Your task to perform on an android device: toggle notifications settings in the gmail app Image 0: 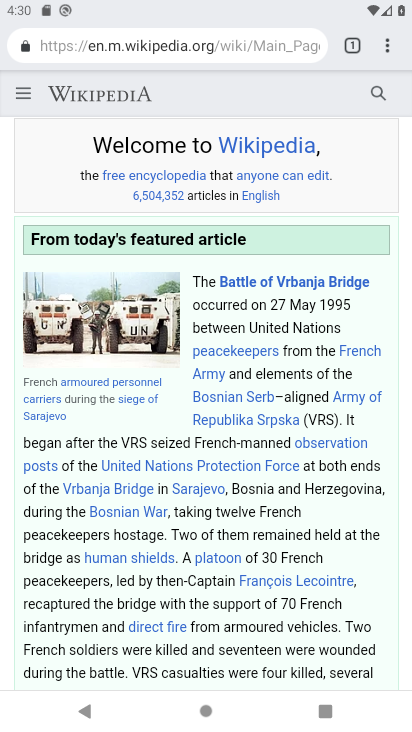
Step 0: press home button
Your task to perform on an android device: toggle notifications settings in the gmail app Image 1: 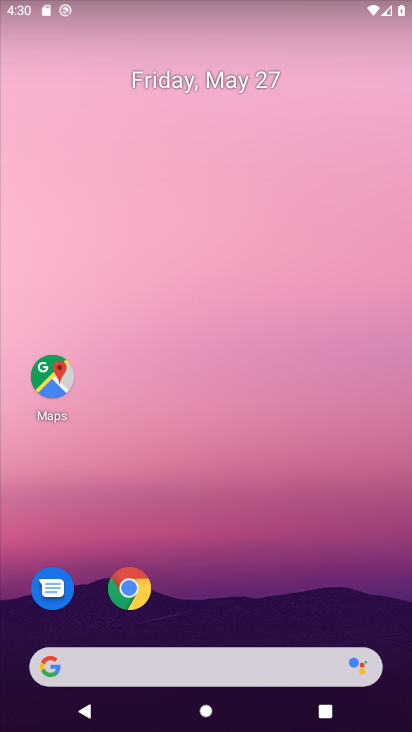
Step 1: drag from (153, 646) to (211, 52)
Your task to perform on an android device: toggle notifications settings in the gmail app Image 2: 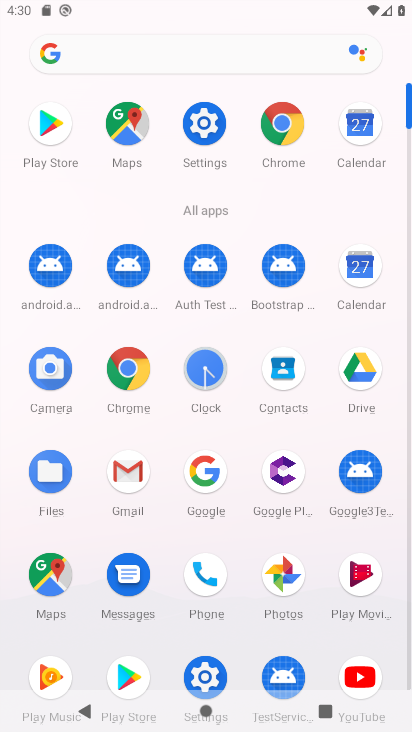
Step 2: click (125, 471)
Your task to perform on an android device: toggle notifications settings in the gmail app Image 3: 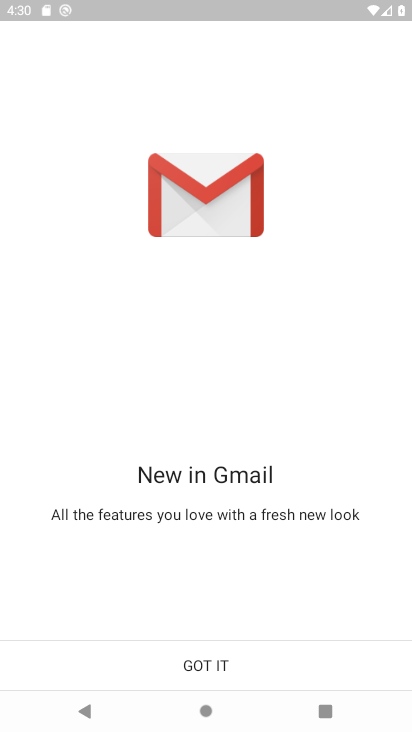
Step 3: click (196, 660)
Your task to perform on an android device: toggle notifications settings in the gmail app Image 4: 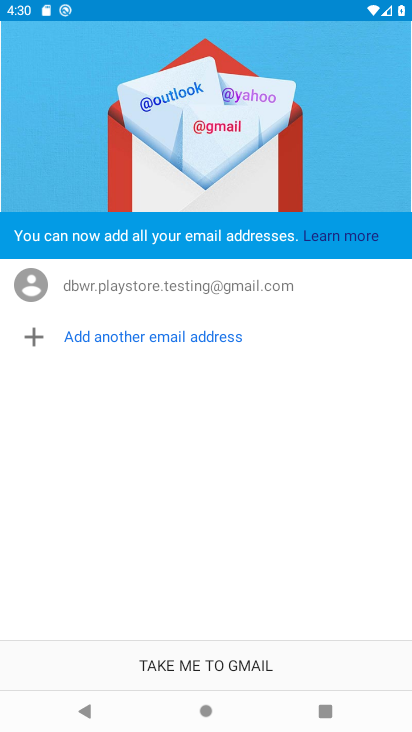
Step 4: click (196, 660)
Your task to perform on an android device: toggle notifications settings in the gmail app Image 5: 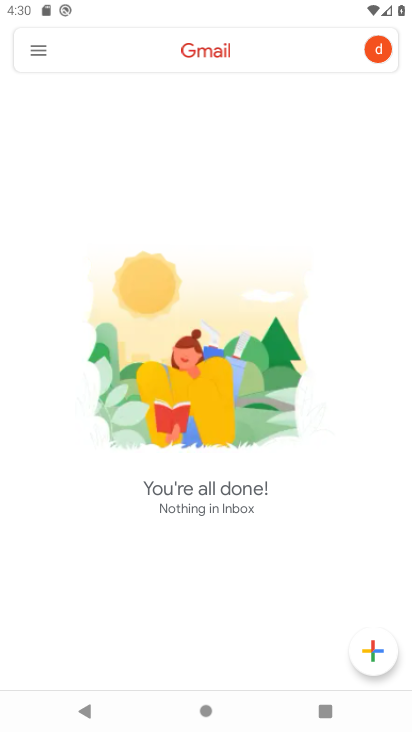
Step 5: click (42, 55)
Your task to perform on an android device: toggle notifications settings in the gmail app Image 6: 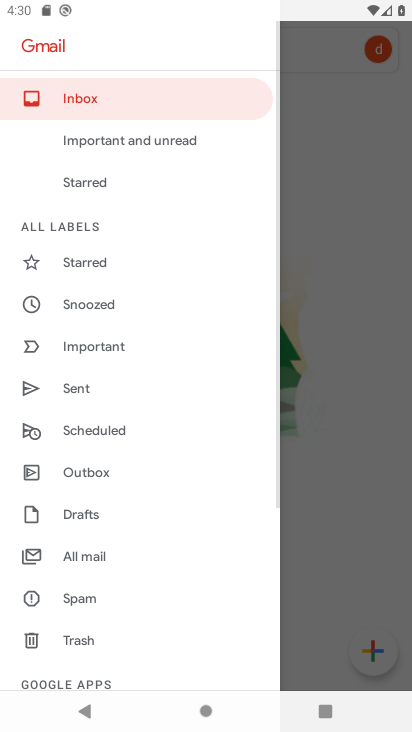
Step 6: drag from (89, 624) to (94, 338)
Your task to perform on an android device: toggle notifications settings in the gmail app Image 7: 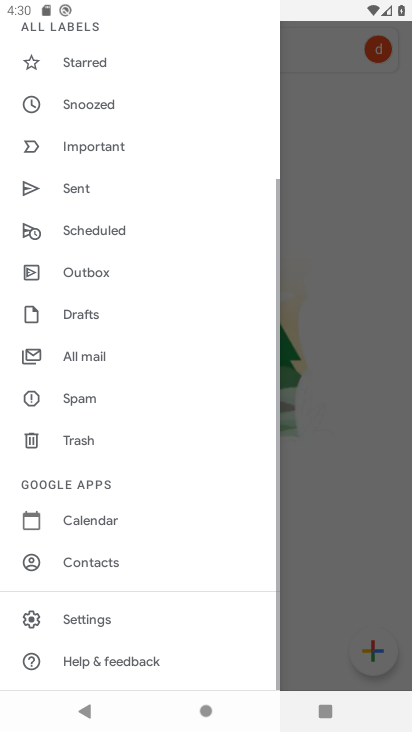
Step 7: click (70, 616)
Your task to perform on an android device: toggle notifications settings in the gmail app Image 8: 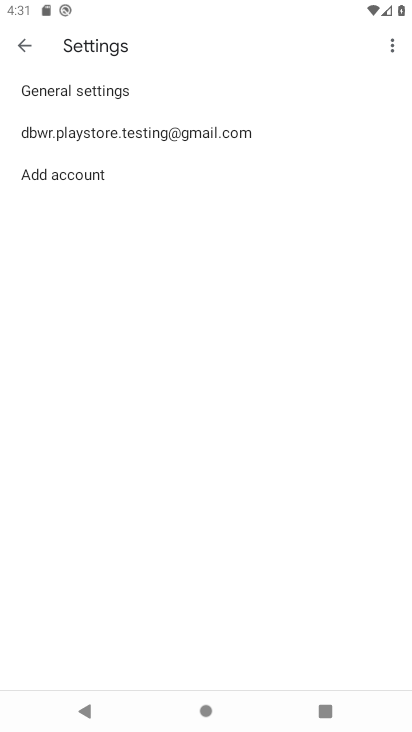
Step 8: click (97, 133)
Your task to perform on an android device: toggle notifications settings in the gmail app Image 9: 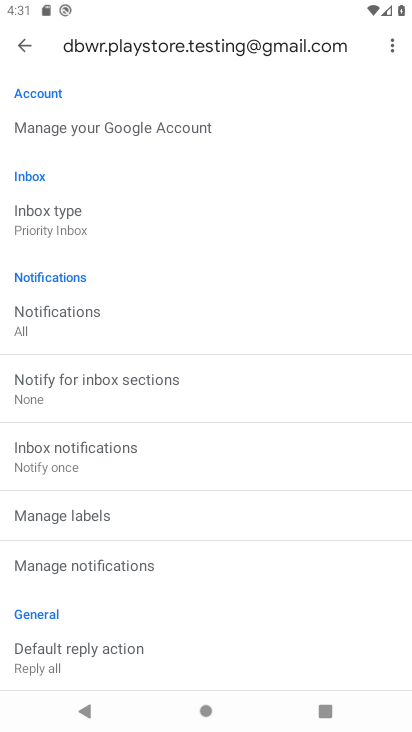
Step 9: click (79, 322)
Your task to perform on an android device: toggle notifications settings in the gmail app Image 10: 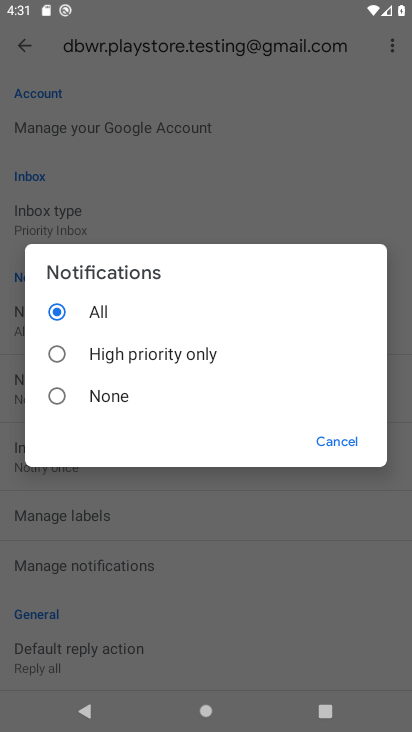
Step 10: click (135, 394)
Your task to perform on an android device: toggle notifications settings in the gmail app Image 11: 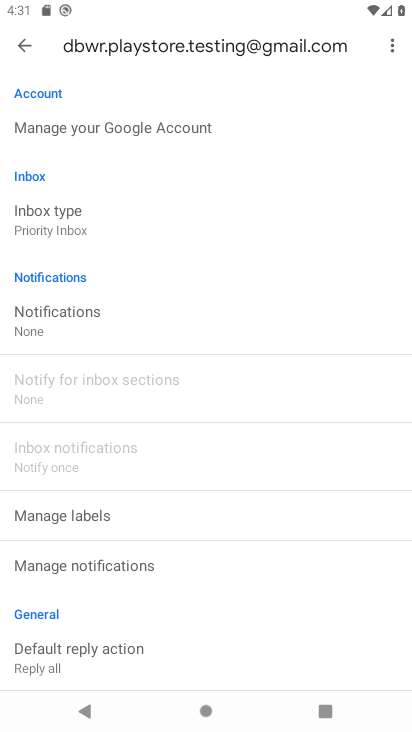
Step 11: task complete